Your task to perform on an android device: Clear all items from cart on costco. Add amazon basics triple a to the cart on costco, then select checkout. Image 0: 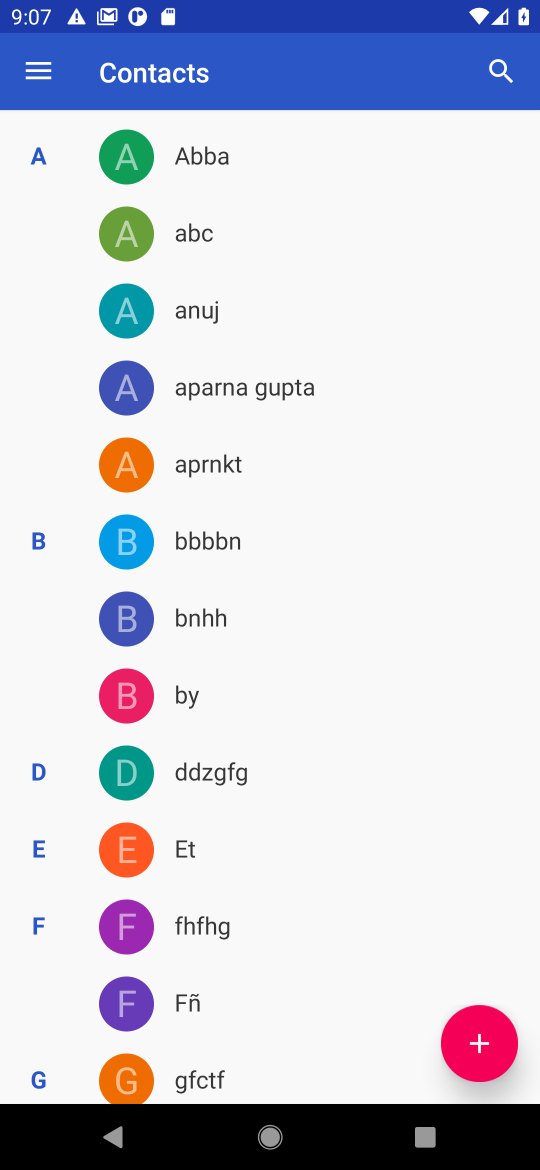
Step 0: press home button
Your task to perform on an android device: Clear all items from cart on costco. Add amazon basics triple a to the cart on costco, then select checkout. Image 1: 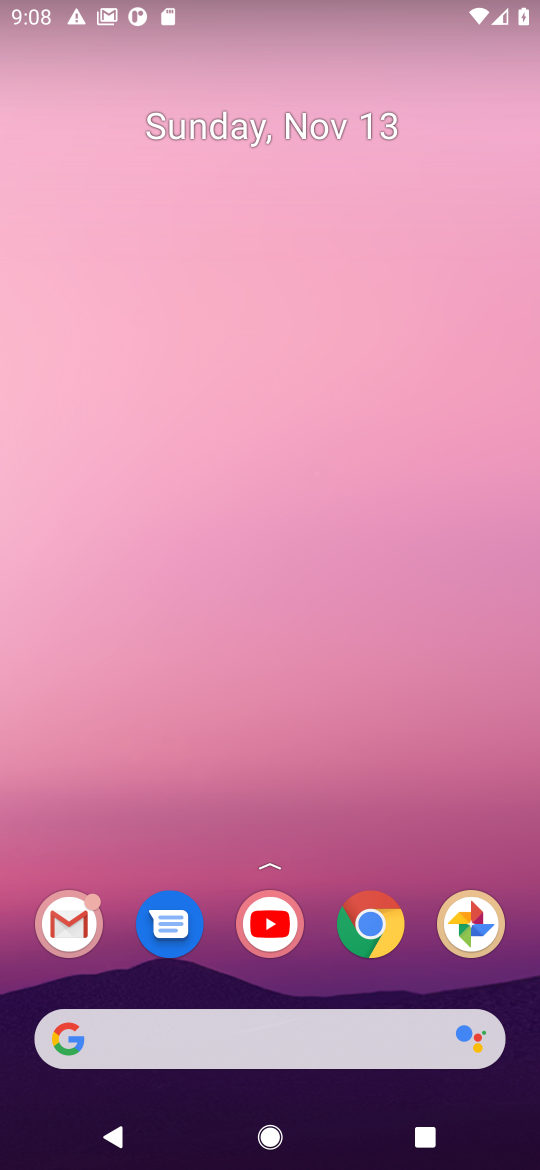
Step 1: click (381, 930)
Your task to perform on an android device: Clear all items from cart on costco. Add amazon basics triple a to the cart on costco, then select checkout. Image 2: 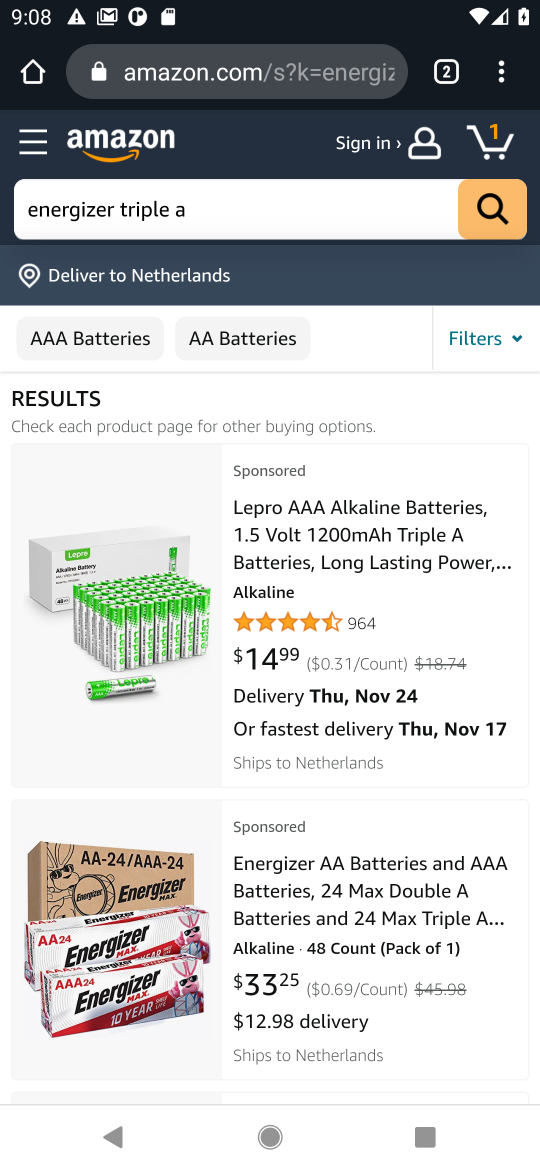
Step 2: click (274, 89)
Your task to perform on an android device: Clear all items from cart on costco. Add amazon basics triple a to the cart on costco, then select checkout. Image 3: 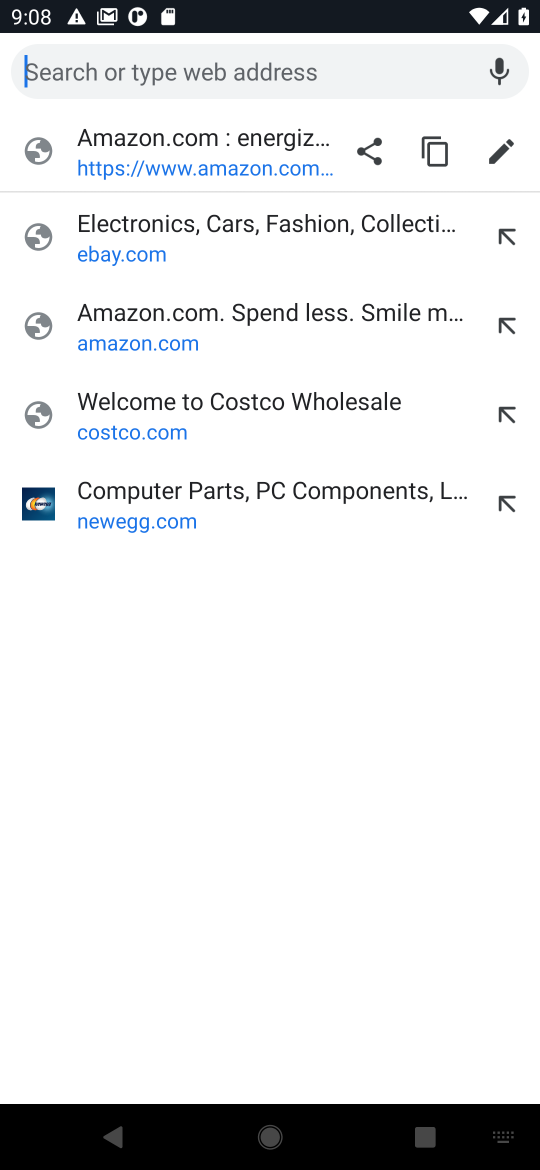
Step 3: click (124, 413)
Your task to perform on an android device: Clear all items from cart on costco. Add amazon basics triple a to the cart on costco, then select checkout. Image 4: 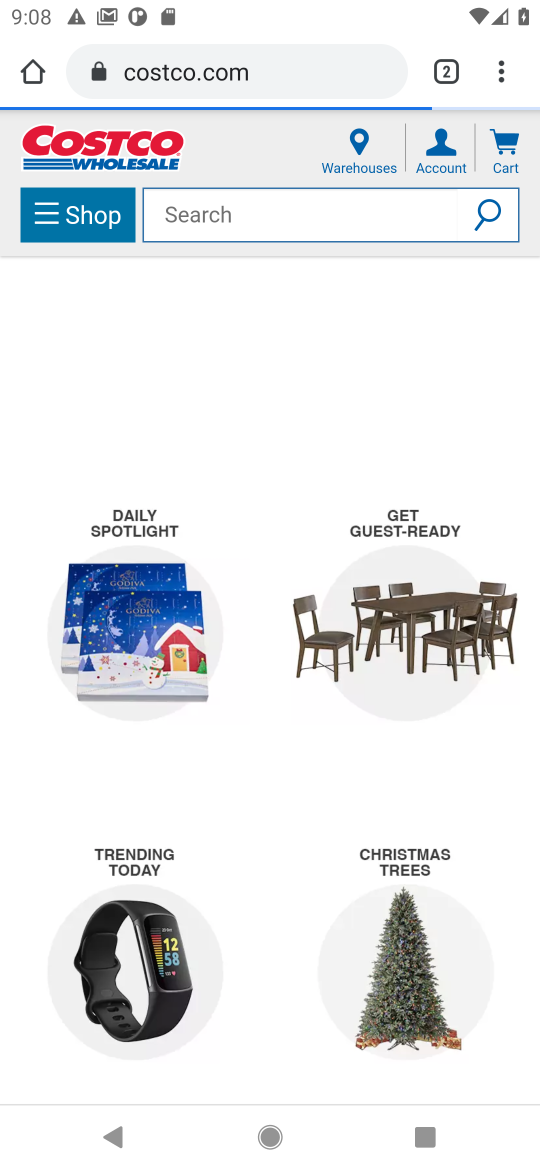
Step 4: click (506, 155)
Your task to perform on an android device: Clear all items from cart on costco. Add amazon basics triple a to the cart on costco, then select checkout. Image 5: 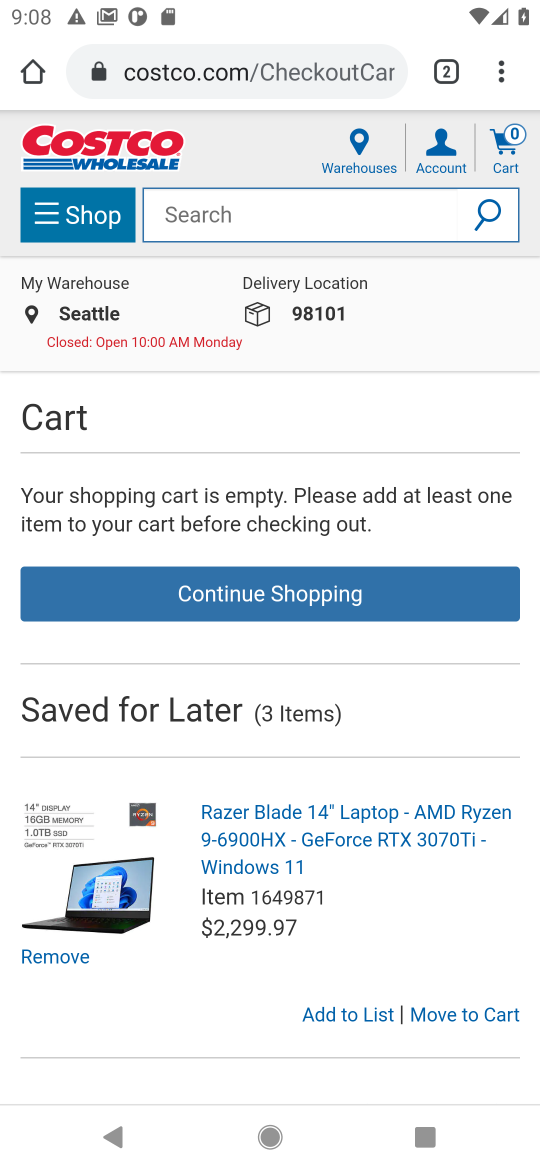
Step 5: click (233, 227)
Your task to perform on an android device: Clear all items from cart on costco. Add amazon basics triple a to the cart on costco, then select checkout. Image 6: 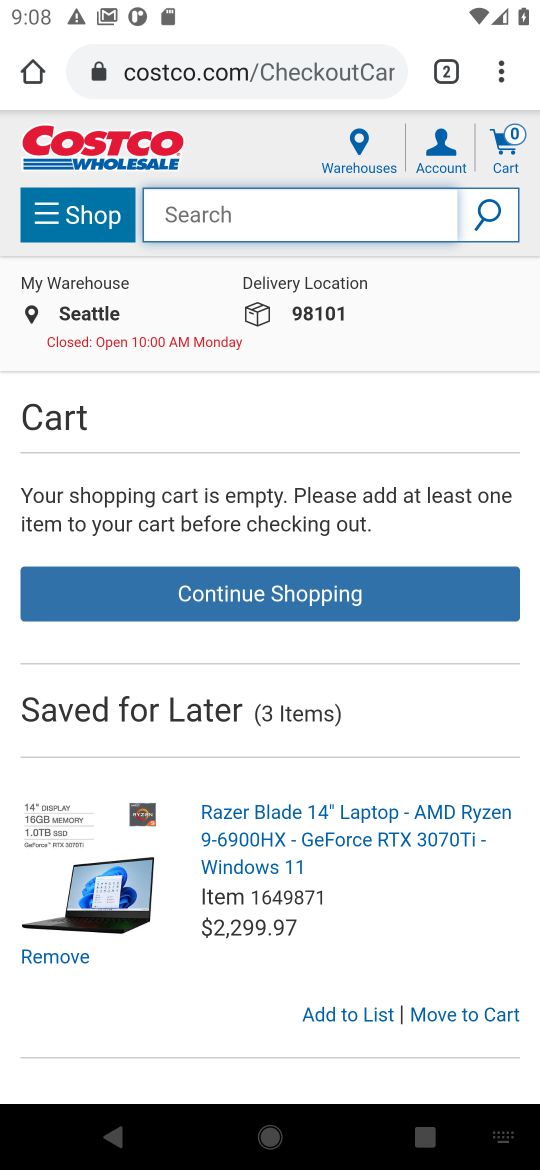
Step 6: type "amazon basics triple a"
Your task to perform on an android device: Clear all items from cart on costco. Add amazon basics triple a to the cart on costco, then select checkout. Image 7: 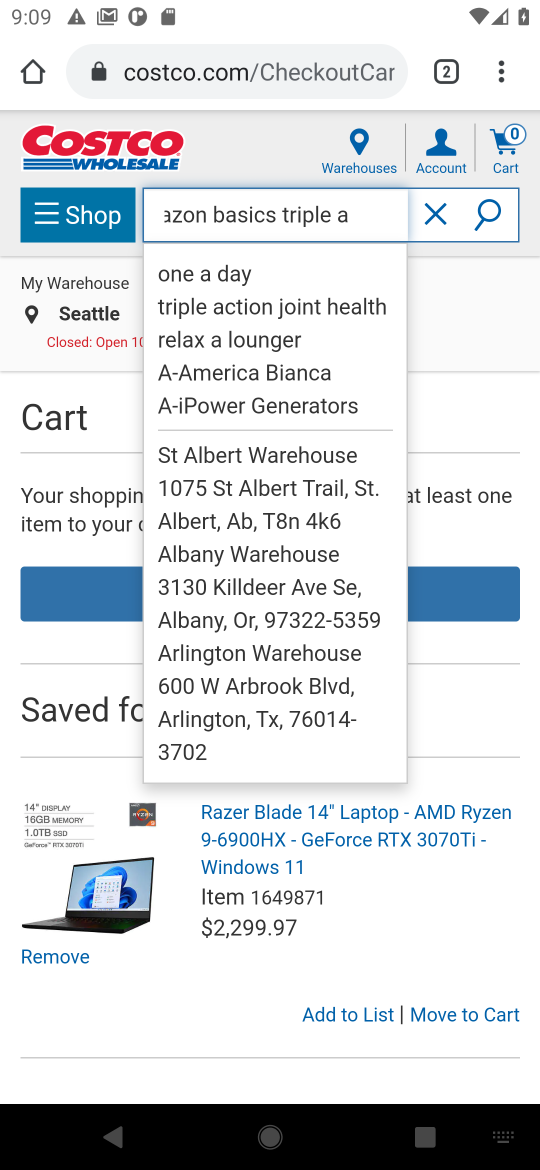
Step 7: click (483, 210)
Your task to perform on an android device: Clear all items from cart on costco. Add amazon basics triple a to the cart on costco, then select checkout. Image 8: 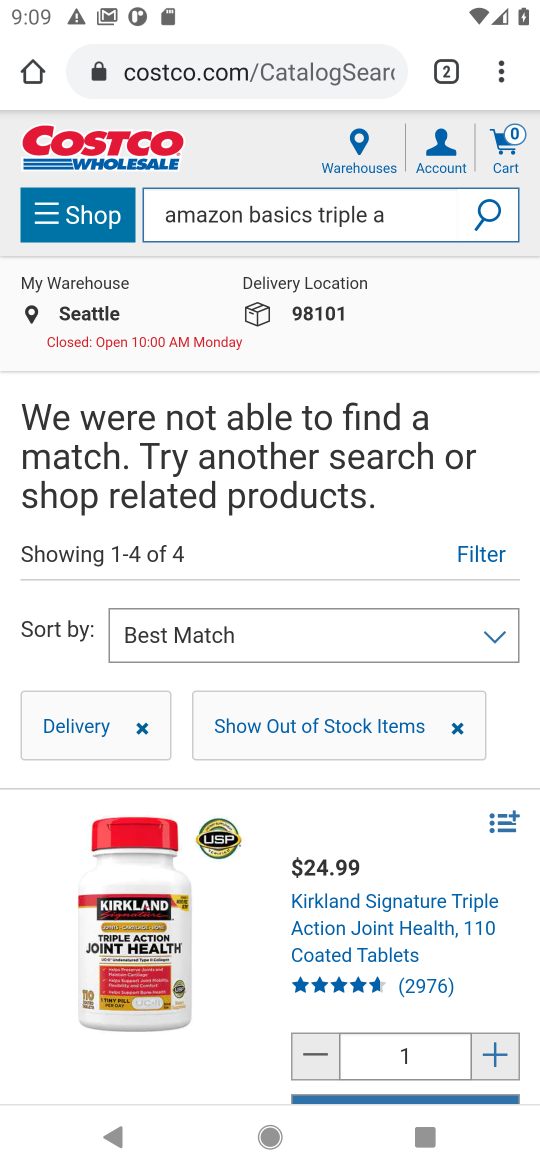
Step 8: task complete